Your task to perform on an android device: turn on airplane mode Image 0: 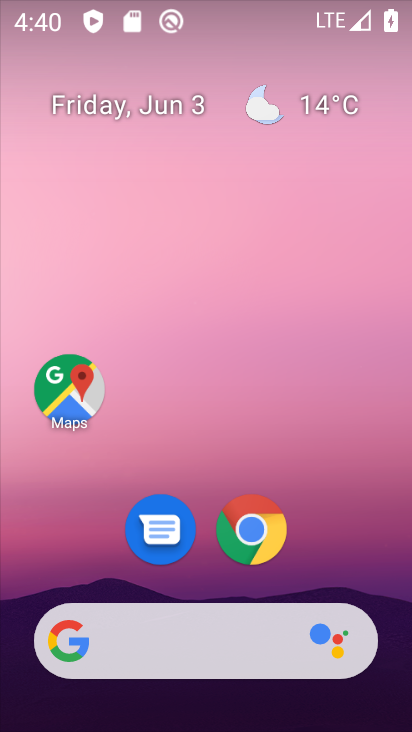
Step 0: drag from (242, 7) to (221, 452)
Your task to perform on an android device: turn on airplane mode Image 1: 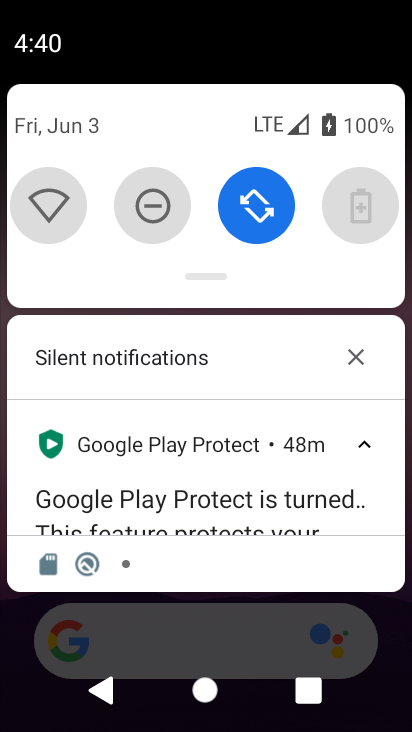
Step 1: drag from (244, 272) to (241, 681)
Your task to perform on an android device: turn on airplane mode Image 2: 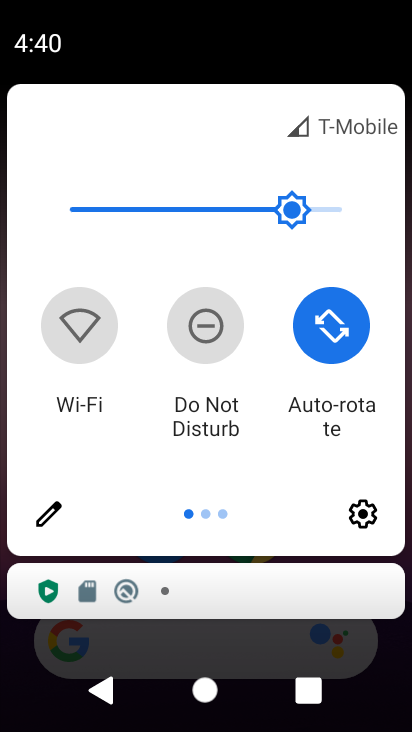
Step 2: drag from (368, 359) to (11, 352)
Your task to perform on an android device: turn on airplane mode Image 3: 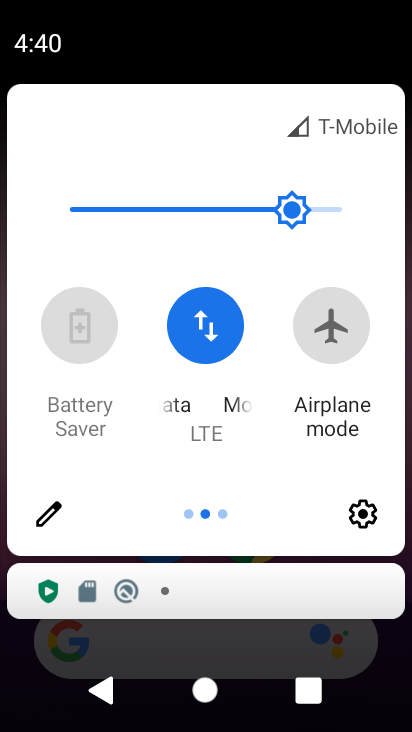
Step 3: click (331, 331)
Your task to perform on an android device: turn on airplane mode Image 4: 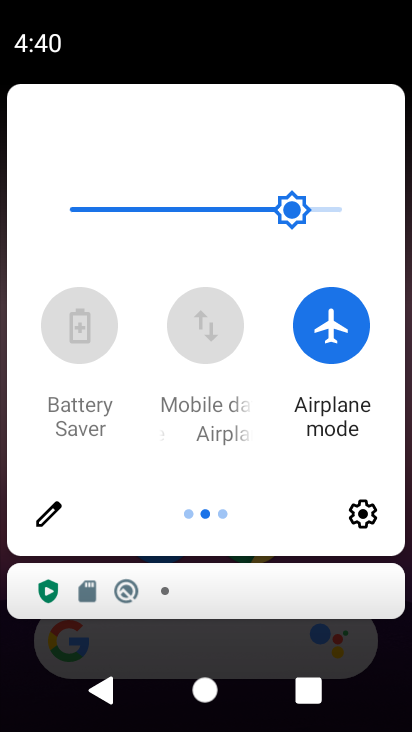
Step 4: task complete